Your task to perform on an android device: Open the Play Movies app and select the watchlist tab. Image 0: 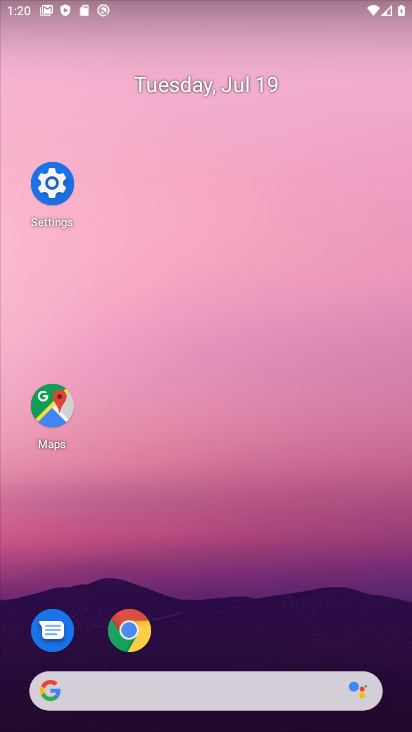
Step 0: drag from (230, 618) to (189, 165)
Your task to perform on an android device: Open the Play Movies app and select the watchlist tab. Image 1: 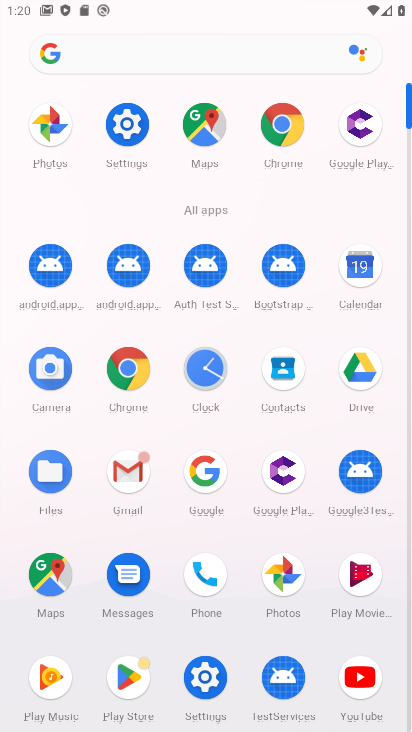
Step 1: click (357, 570)
Your task to perform on an android device: Open the Play Movies app and select the watchlist tab. Image 2: 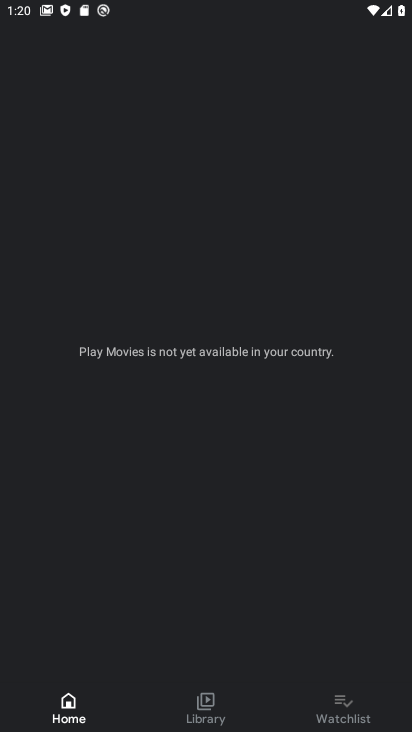
Step 2: click (340, 706)
Your task to perform on an android device: Open the Play Movies app and select the watchlist tab. Image 3: 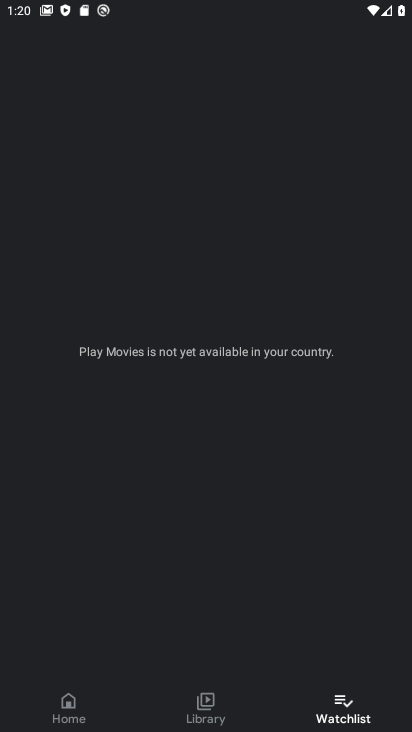
Step 3: task complete